Your task to perform on an android device: star an email in the gmail app Image 0: 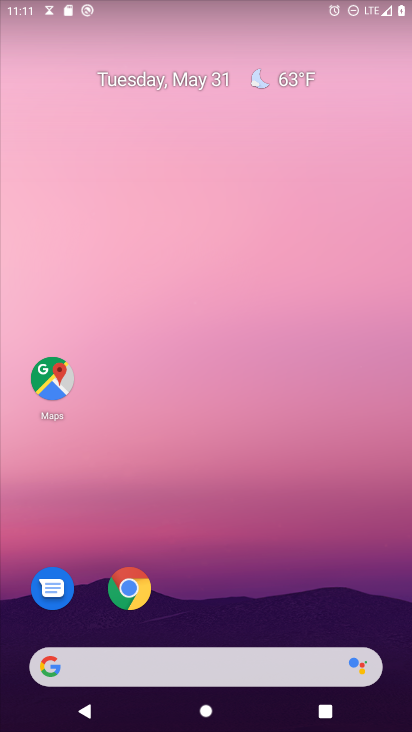
Step 0: drag from (227, 571) to (162, 32)
Your task to perform on an android device: star an email in the gmail app Image 1: 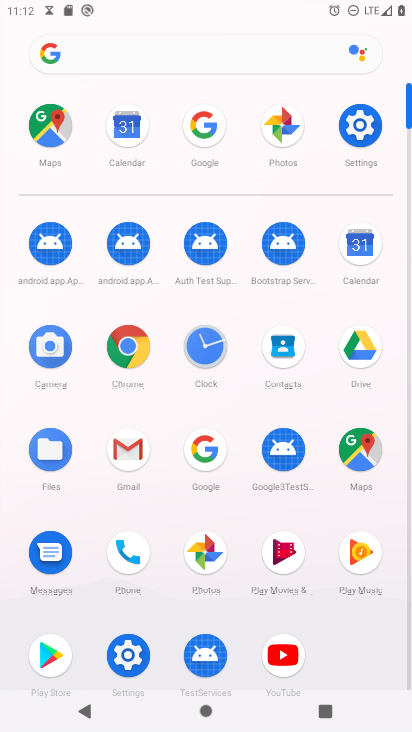
Step 1: click (130, 448)
Your task to perform on an android device: star an email in the gmail app Image 2: 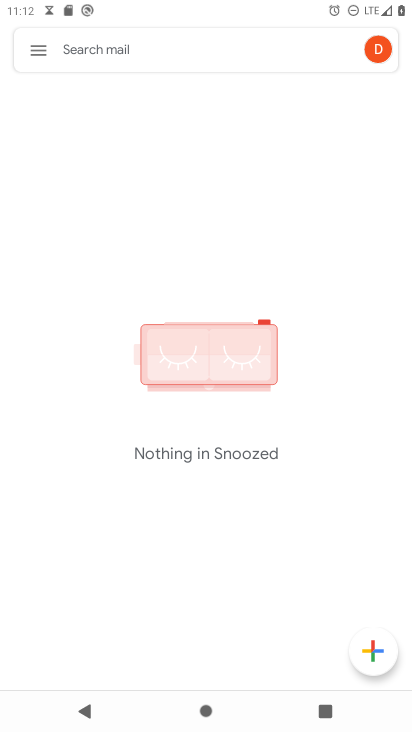
Step 2: click (42, 47)
Your task to perform on an android device: star an email in the gmail app Image 3: 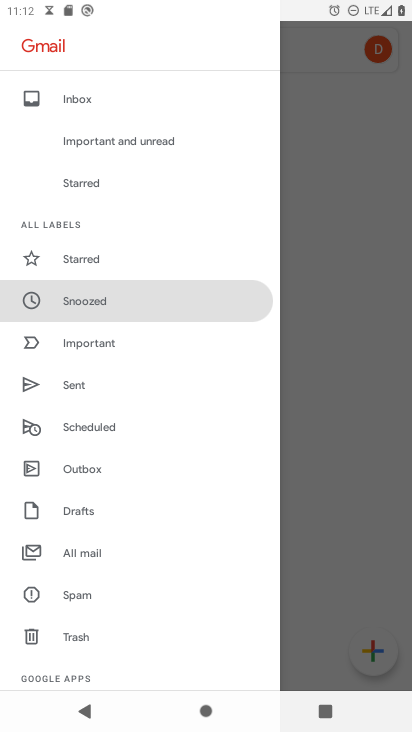
Step 3: click (71, 90)
Your task to perform on an android device: star an email in the gmail app Image 4: 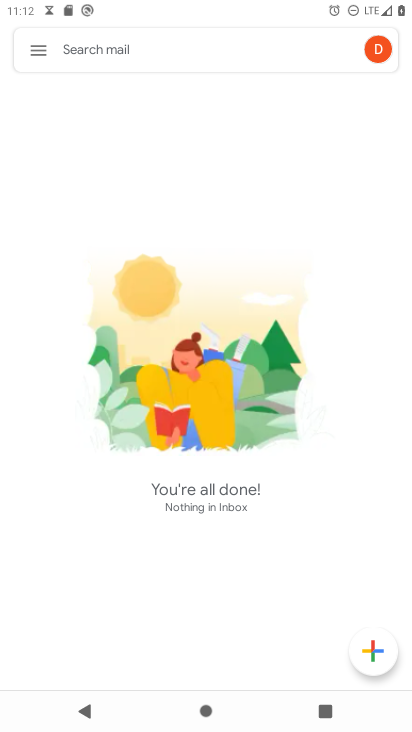
Step 4: click (42, 54)
Your task to perform on an android device: star an email in the gmail app Image 5: 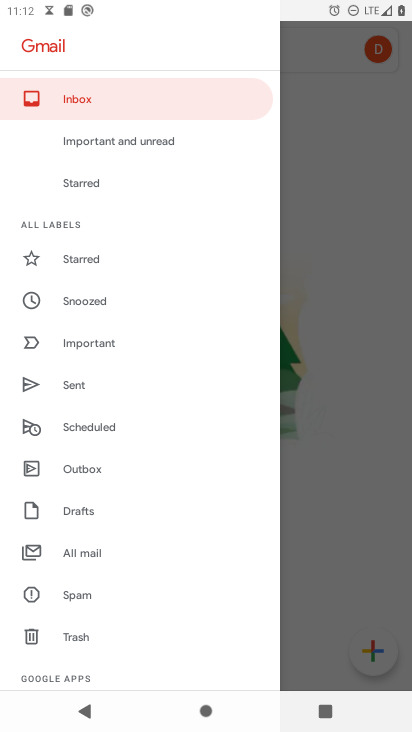
Step 5: click (87, 254)
Your task to perform on an android device: star an email in the gmail app Image 6: 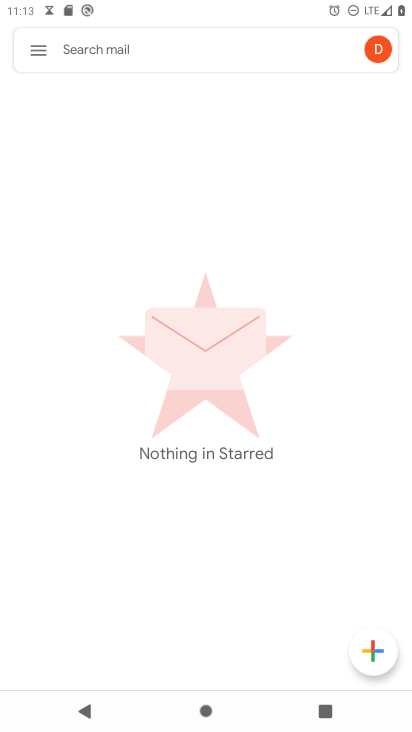
Step 6: task complete